Your task to perform on an android device: change alarm snooze length Image 0: 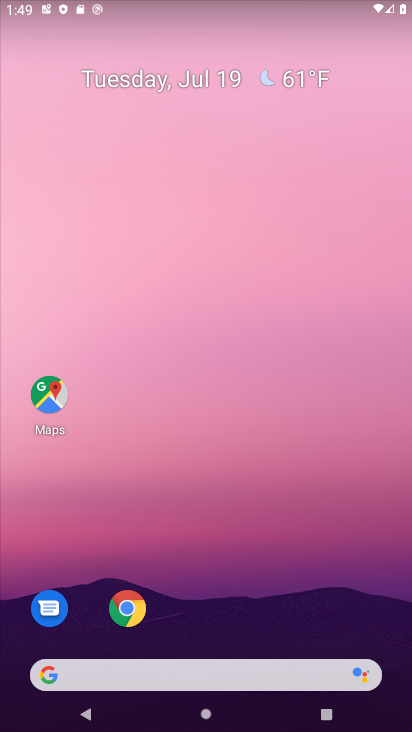
Step 0: drag from (313, 609) to (410, 134)
Your task to perform on an android device: change alarm snooze length Image 1: 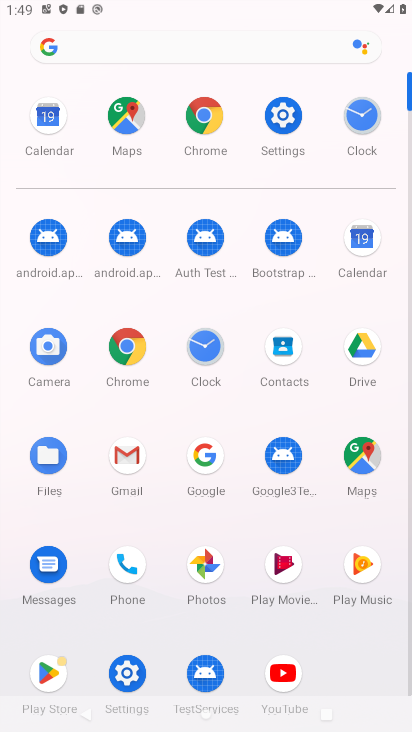
Step 1: click (372, 118)
Your task to perform on an android device: change alarm snooze length Image 2: 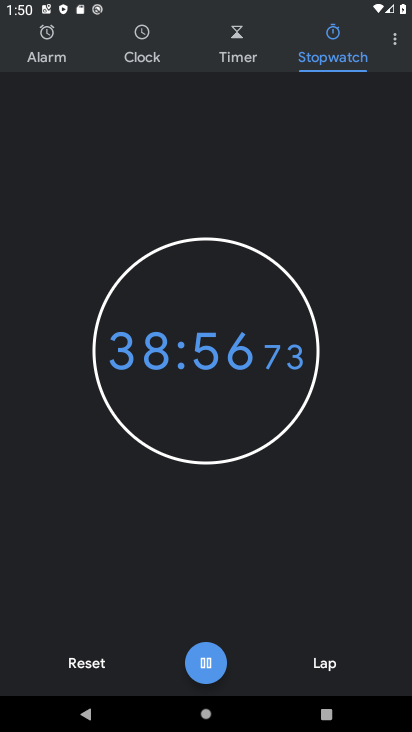
Step 2: click (399, 35)
Your task to perform on an android device: change alarm snooze length Image 3: 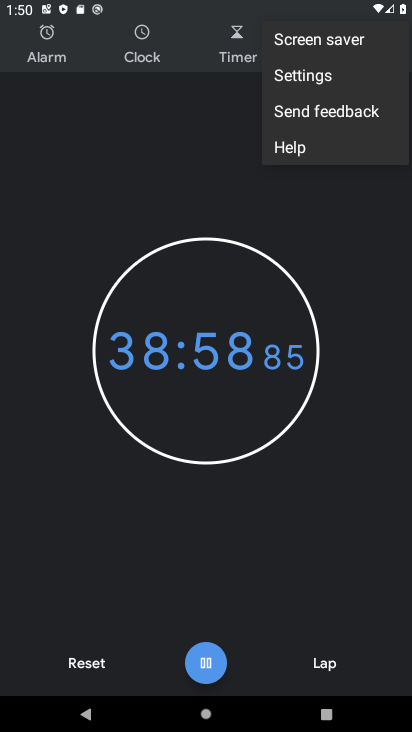
Step 3: click (282, 92)
Your task to perform on an android device: change alarm snooze length Image 4: 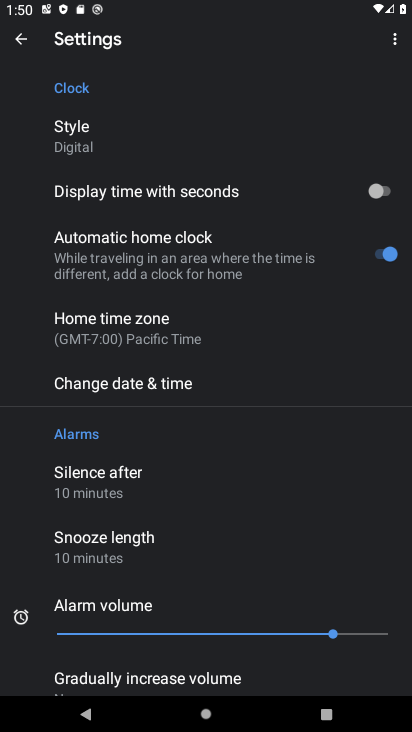
Step 4: drag from (126, 621) to (255, 111)
Your task to perform on an android device: change alarm snooze length Image 5: 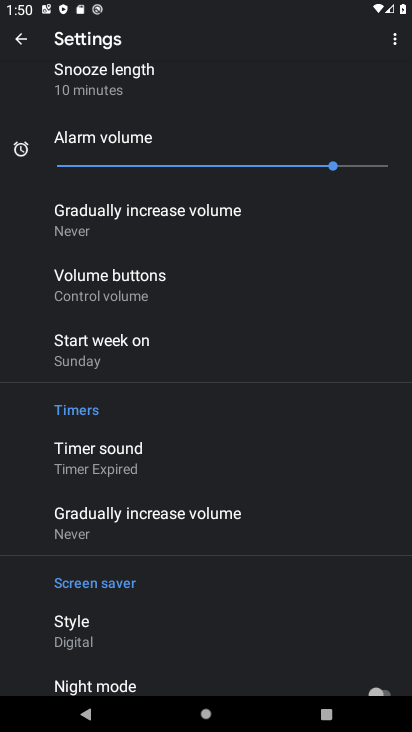
Step 5: drag from (253, 123) to (177, 731)
Your task to perform on an android device: change alarm snooze length Image 6: 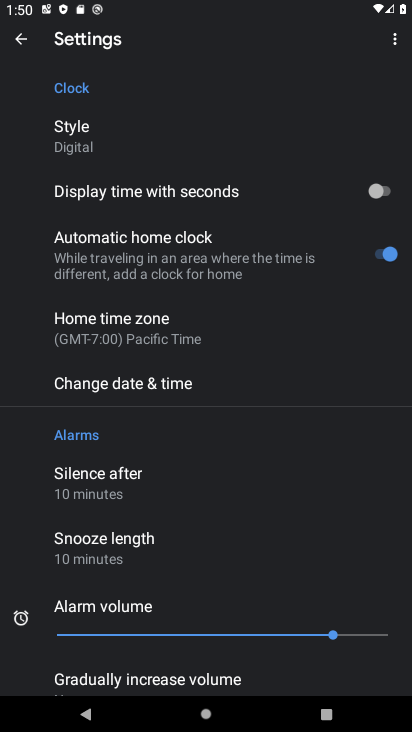
Step 6: click (73, 565)
Your task to perform on an android device: change alarm snooze length Image 7: 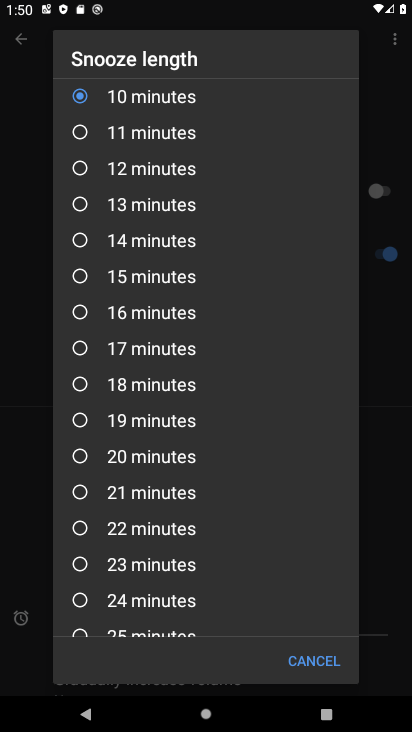
Step 7: click (87, 382)
Your task to perform on an android device: change alarm snooze length Image 8: 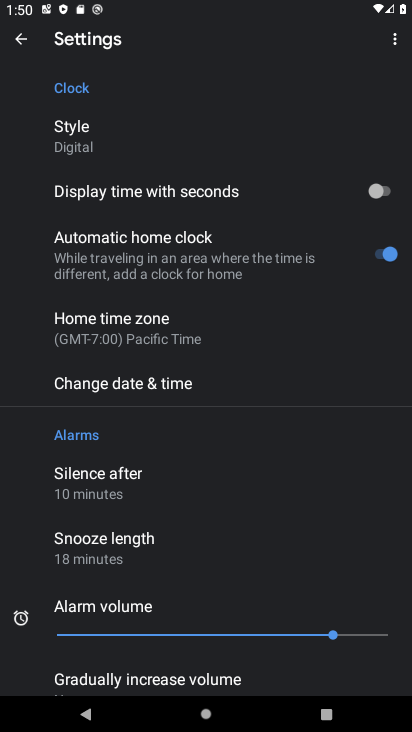
Step 8: task complete